Your task to perform on an android device: Go to Wikipedia Image 0: 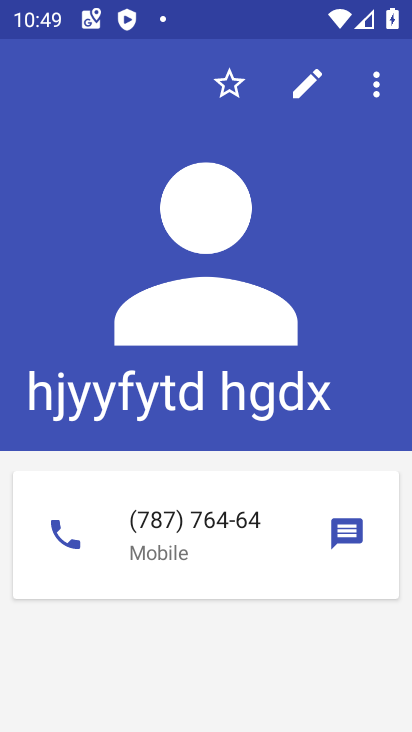
Step 0: press home button
Your task to perform on an android device: Go to Wikipedia Image 1: 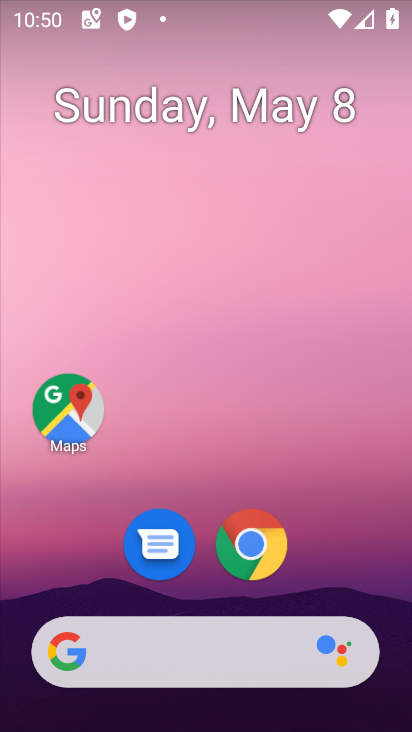
Step 1: click (325, 571)
Your task to perform on an android device: Go to Wikipedia Image 2: 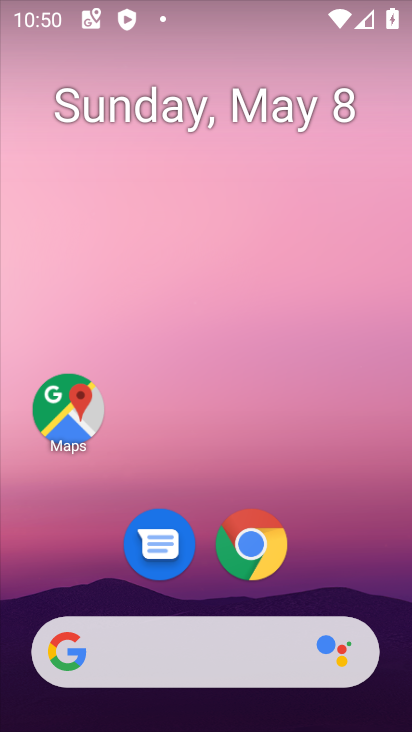
Step 2: click (261, 551)
Your task to perform on an android device: Go to Wikipedia Image 3: 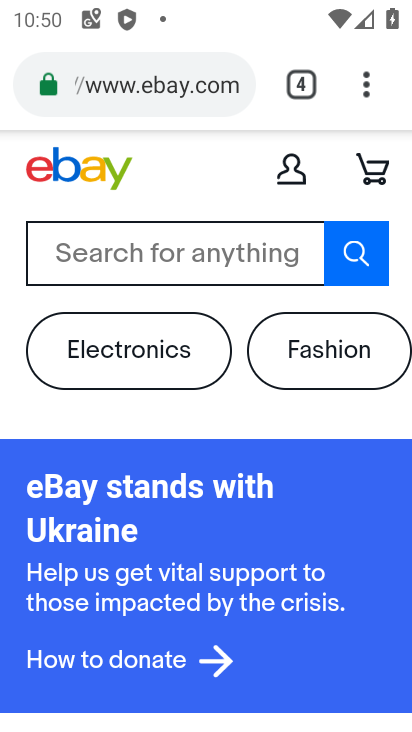
Step 3: click (319, 86)
Your task to perform on an android device: Go to Wikipedia Image 4: 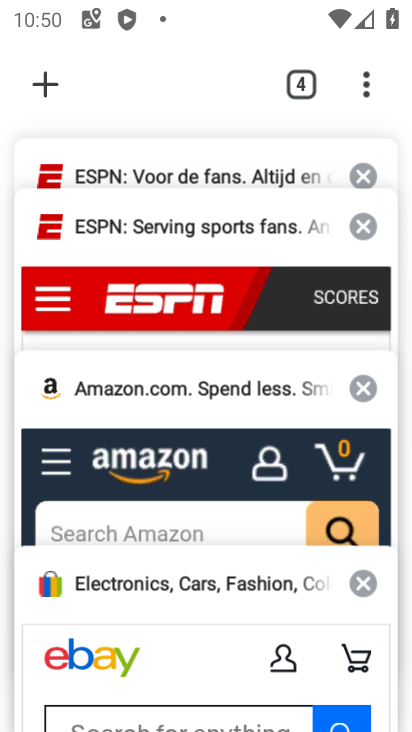
Step 4: click (49, 100)
Your task to perform on an android device: Go to Wikipedia Image 5: 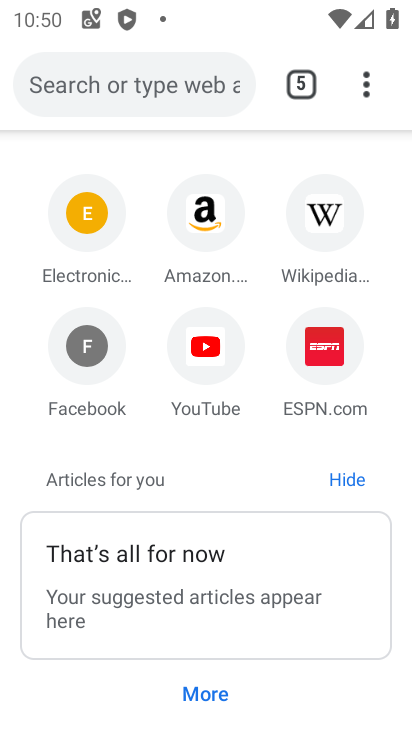
Step 5: click (333, 225)
Your task to perform on an android device: Go to Wikipedia Image 6: 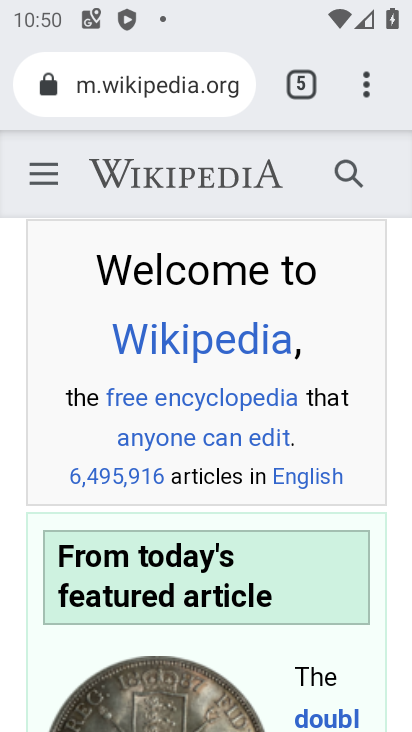
Step 6: task complete